Your task to perform on an android device: Open battery settings Image 0: 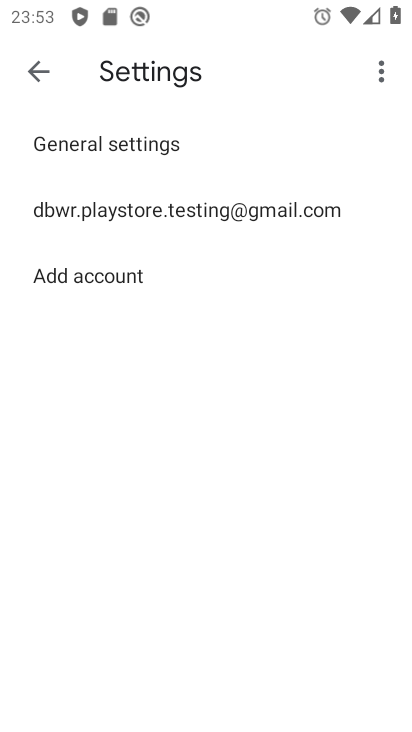
Step 0: press home button
Your task to perform on an android device: Open battery settings Image 1: 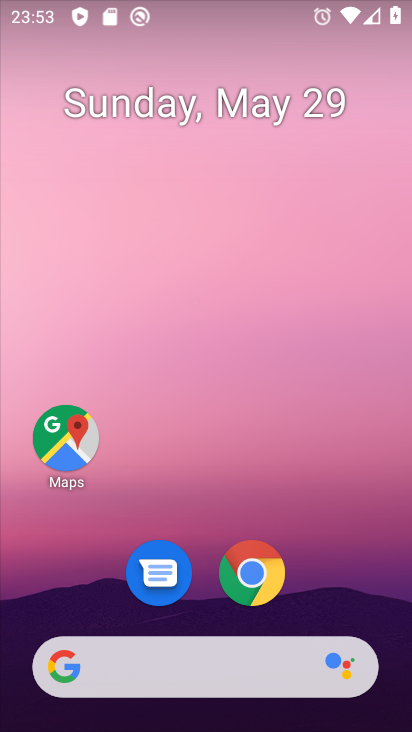
Step 1: drag from (364, 562) to (197, 22)
Your task to perform on an android device: Open battery settings Image 2: 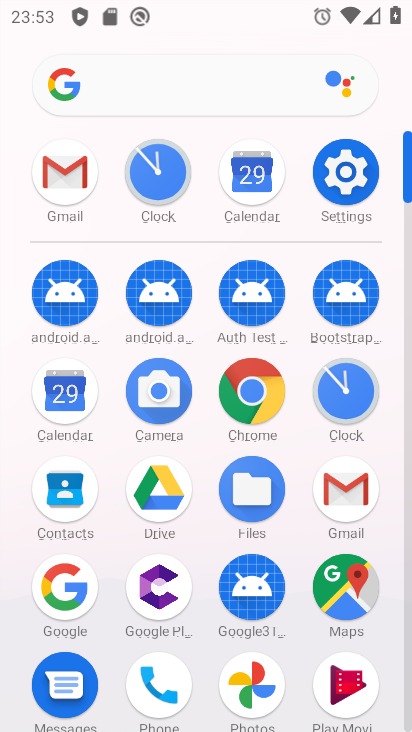
Step 2: click (345, 176)
Your task to perform on an android device: Open battery settings Image 3: 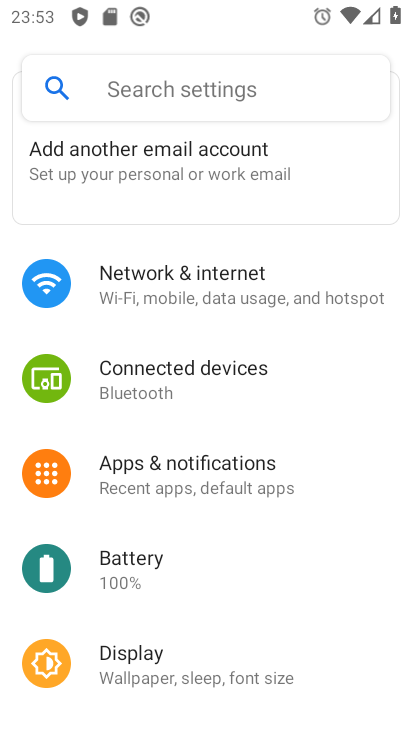
Step 3: click (206, 580)
Your task to perform on an android device: Open battery settings Image 4: 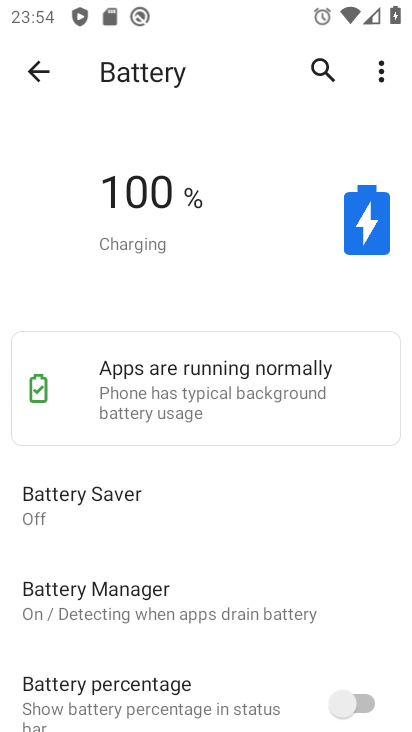
Step 4: task complete